Your task to perform on an android device: turn off wifi Image 0: 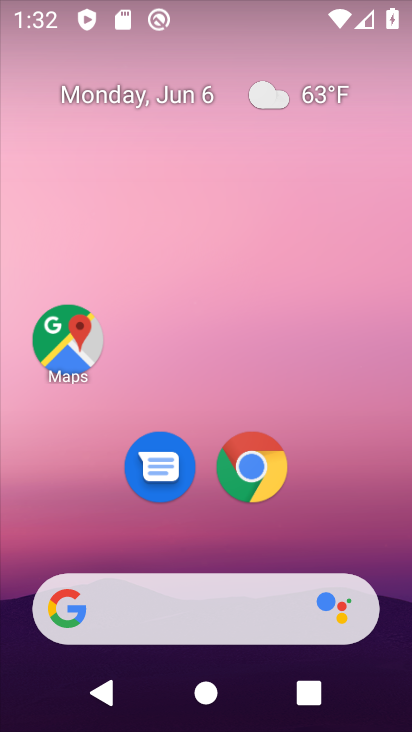
Step 0: drag from (399, 556) to (396, 511)
Your task to perform on an android device: turn off wifi Image 1: 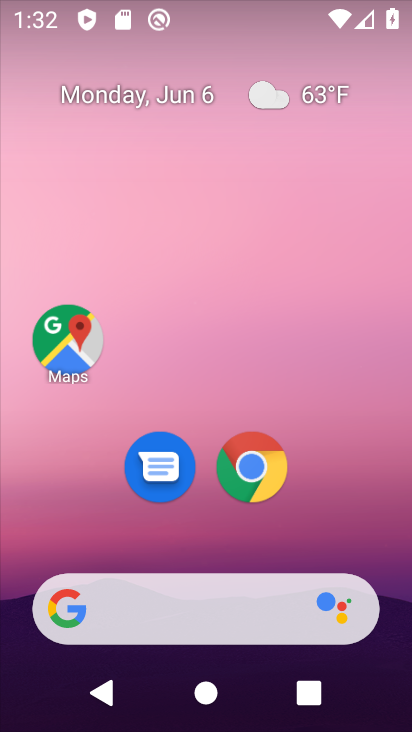
Step 1: drag from (338, 224) to (287, 53)
Your task to perform on an android device: turn off wifi Image 2: 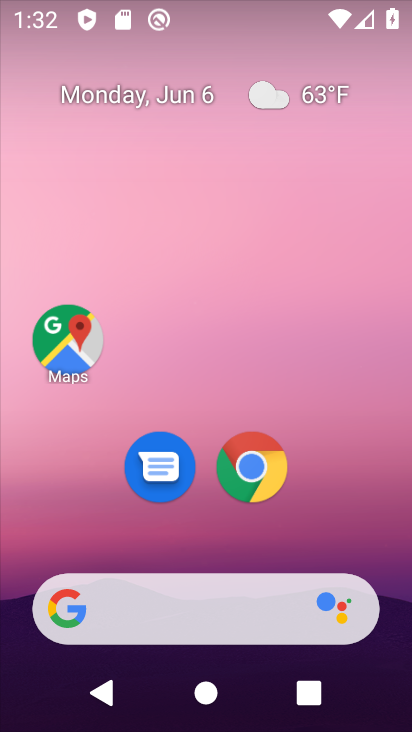
Step 2: drag from (387, 603) to (256, 8)
Your task to perform on an android device: turn off wifi Image 3: 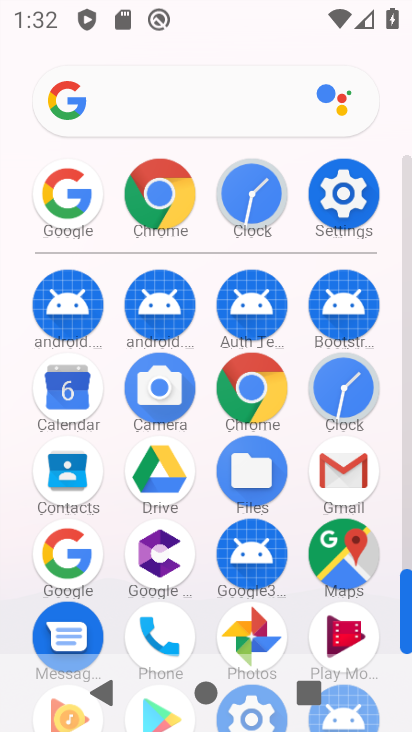
Step 3: drag from (198, 2) to (195, 556)
Your task to perform on an android device: turn off wifi Image 4: 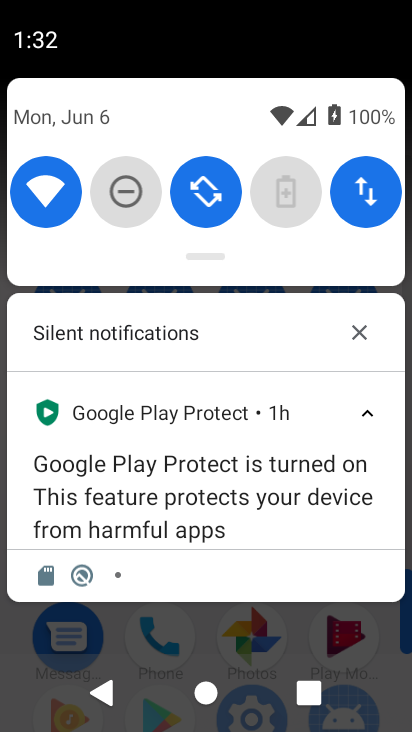
Step 4: click (36, 205)
Your task to perform on an android device: turn off wifi Image 5: 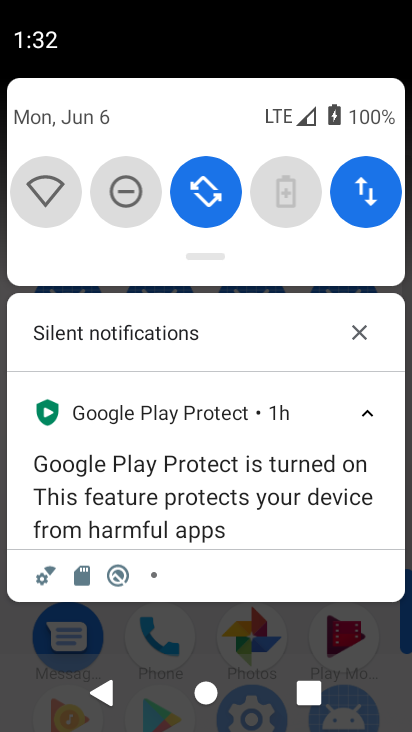
Step 5: task complete